Your task to perform on an android device: clear history in the chrome app Image 0: 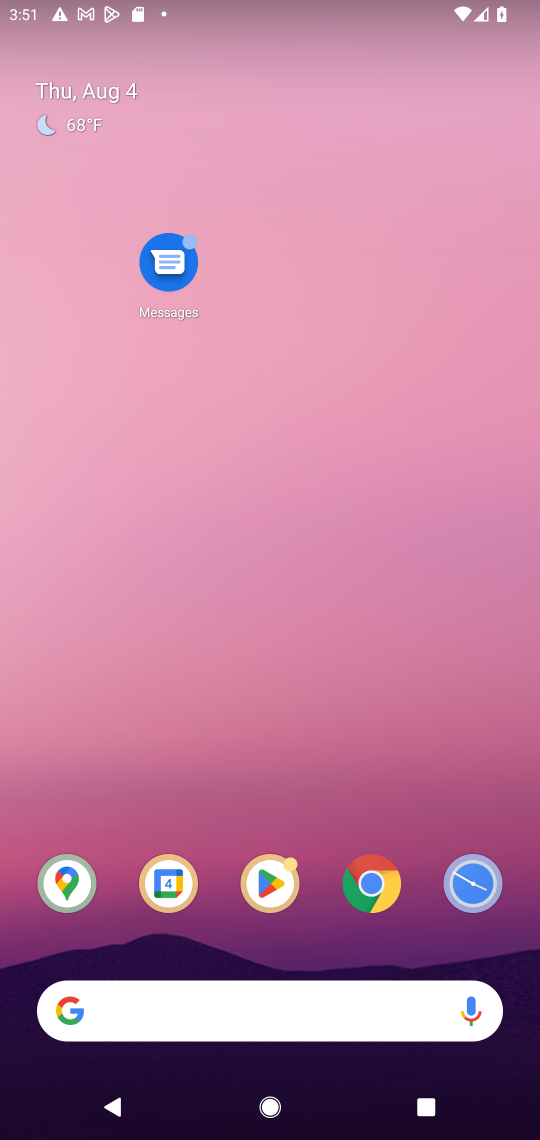
Step 0: click (372, 882)
Your task to perform on an android device: clear history in the chrome app Image 1: 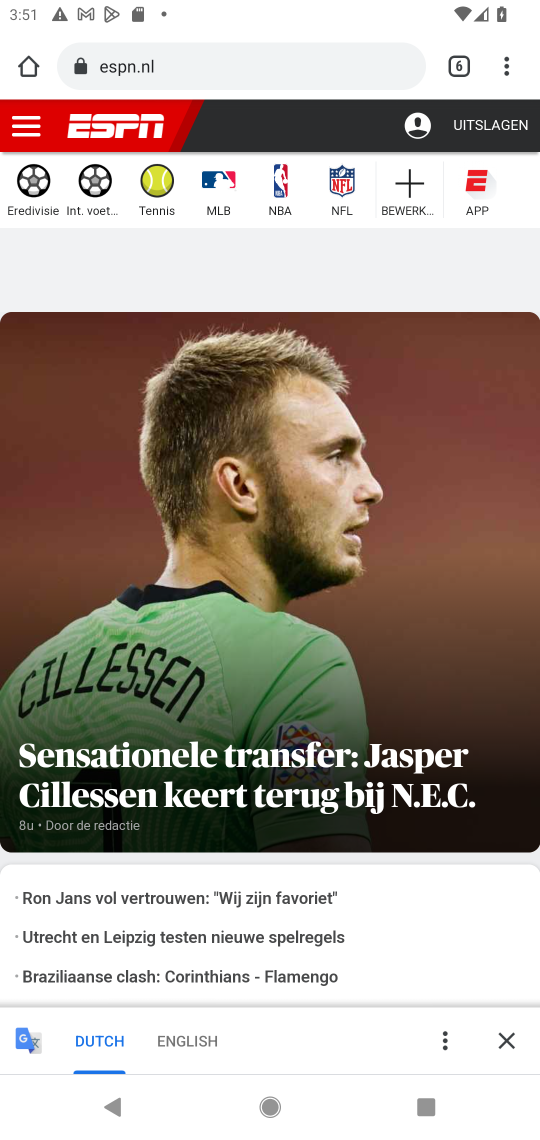
Step 1: click (504, 72)
Your task to perform on an android device: clear history in the chrome app Image 2: 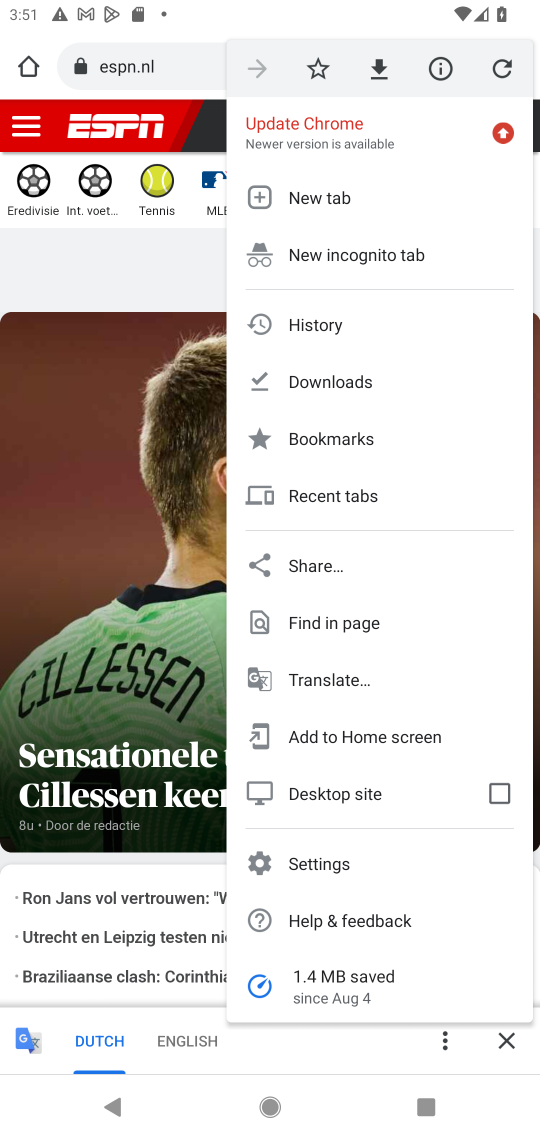
Step 2: click (317, 327)
Your task to perform on an android device: clear history in the chrome app Image 3: 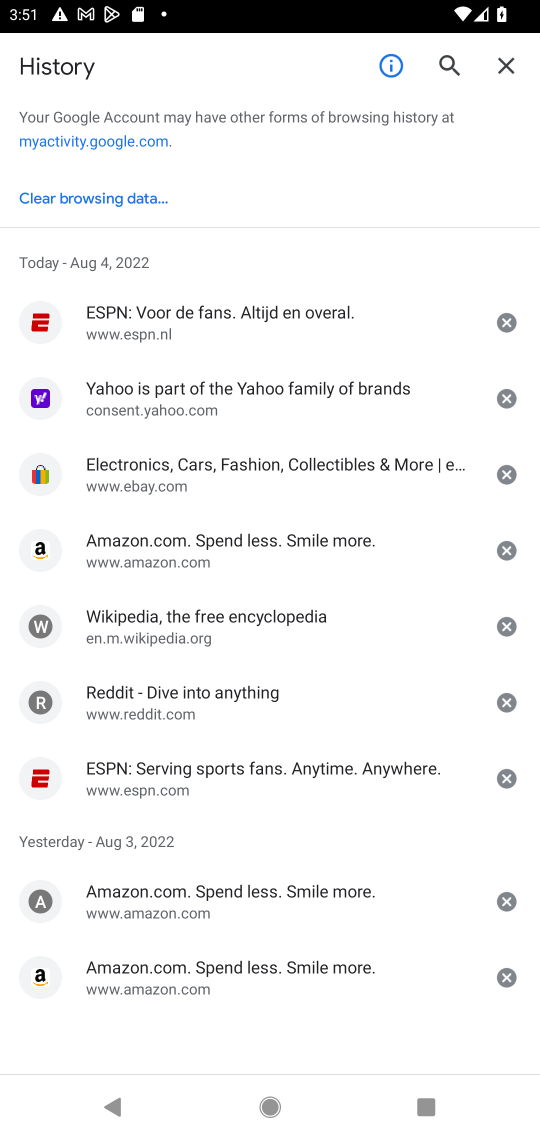
Step 3: click (49, 188)
Your task to perform on an android device: clear history in the chrome app Image 4: 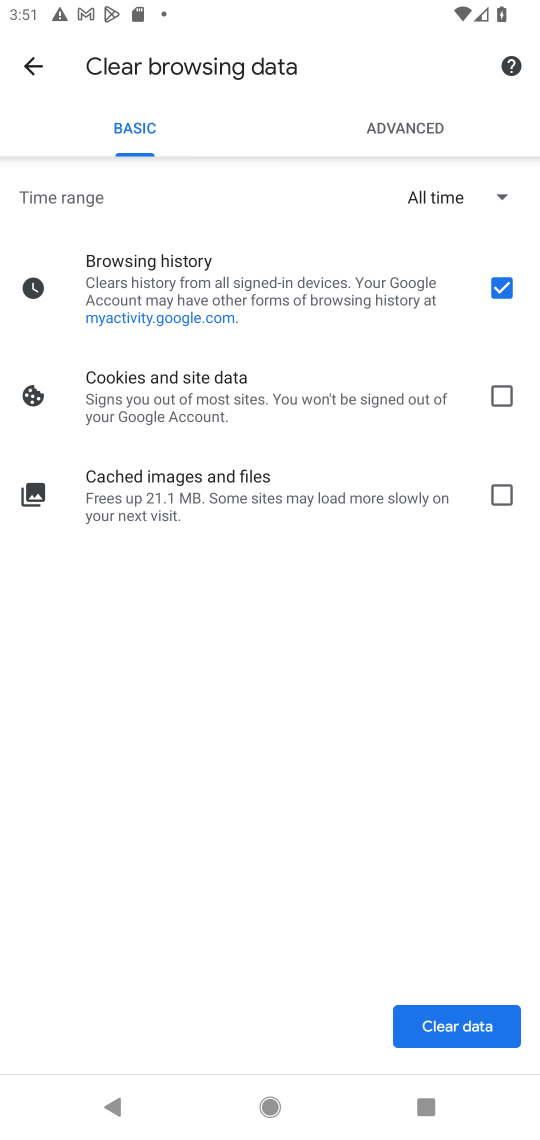
Step 4: click (488, 1021)
Your task to perform on an android device: clear history in the chrome app Image 5: 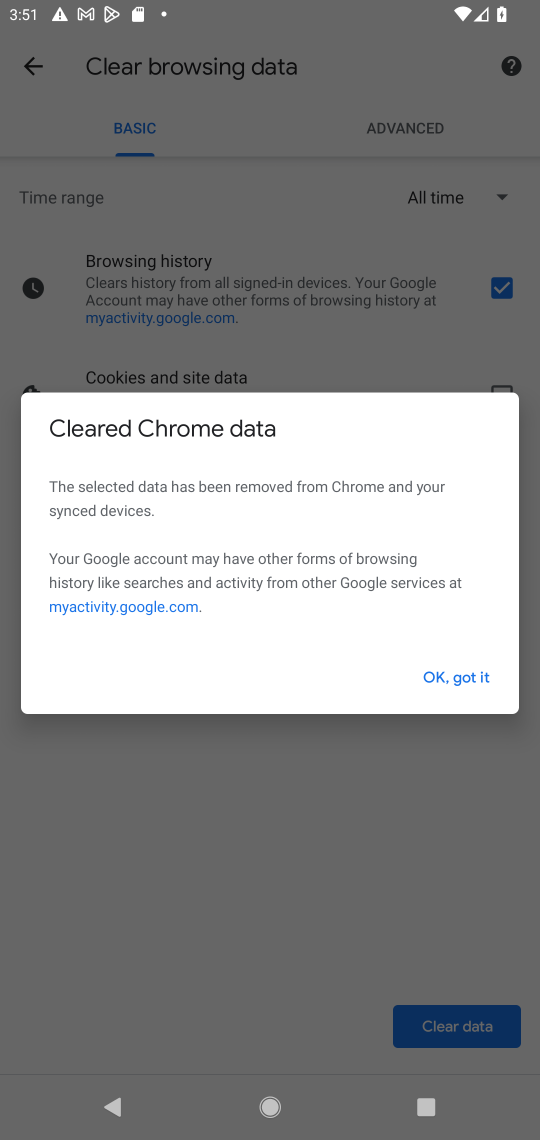
Step 5: click (466, 674)
Your task to perform on an android device: clear history in the chrome app Image 6: 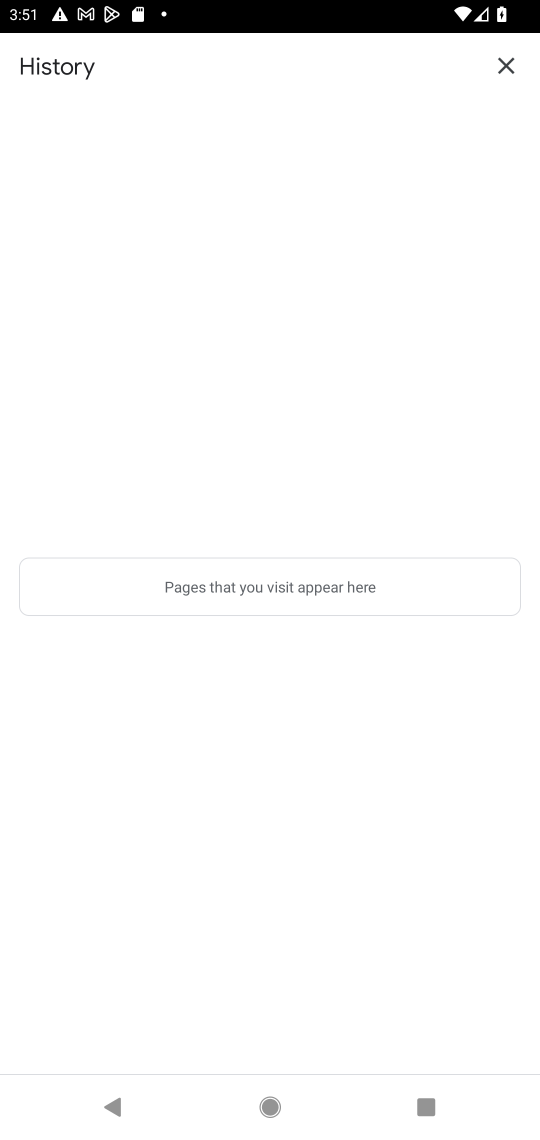
Step 6: task complete